Your task to perform on an android device: add a contact Image 0: 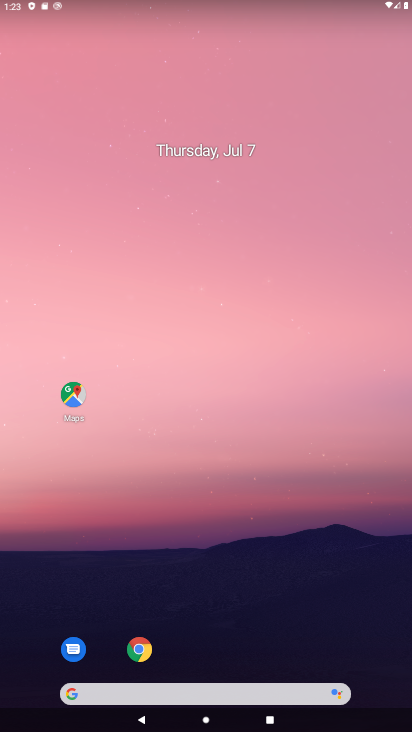
Step 0: drag from (365, 642) to (346, 45)
Your task to perform on an android device: add a contact Image 1: 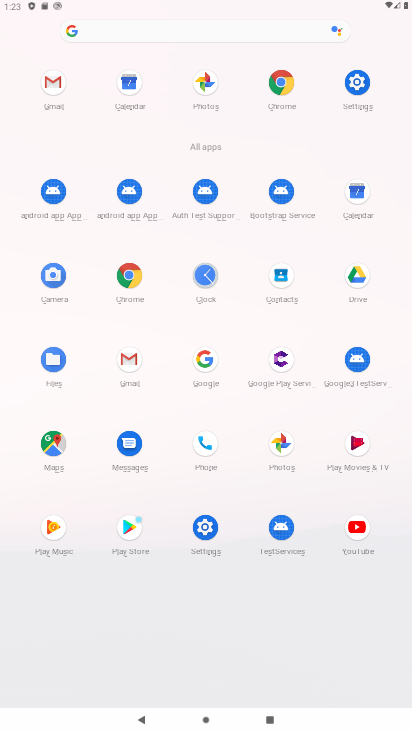
Step 1: click (279, 275)
Your task to perform on an android device: add a contact Image 2: 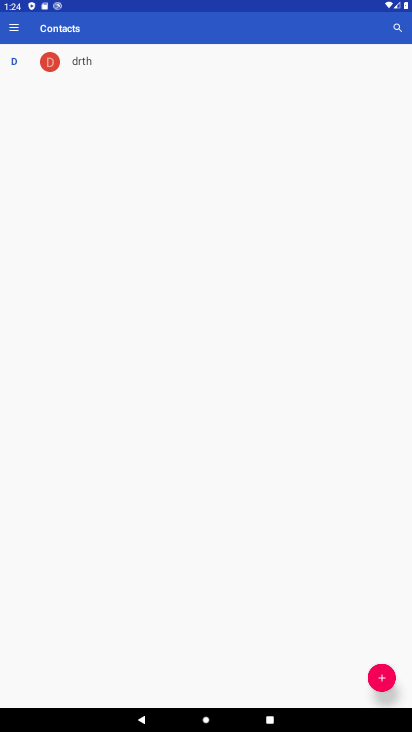
Step 2: click (383, 680)
Your task to perform on an android device: add a contact Image 3: 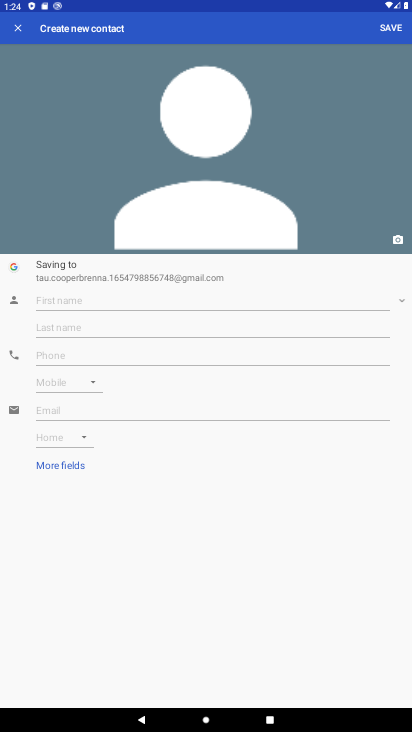
Step 3: click (55, 294)
Your task to perform on an android device: add a contact Image 4: 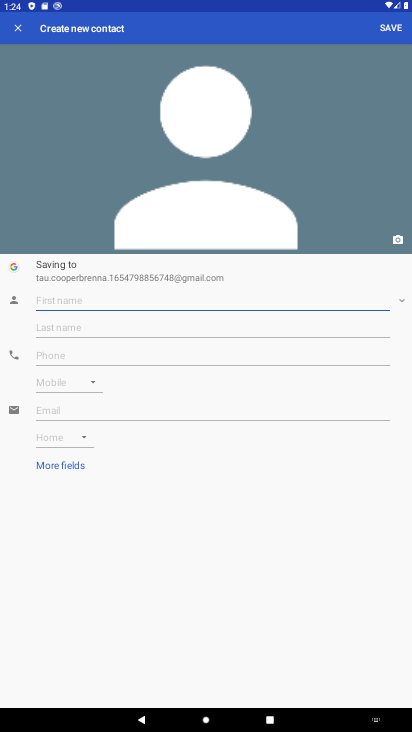
Step 4: type "lkjhgfdsasyui"
Your task to perform on an android device: add a contact Image 5: 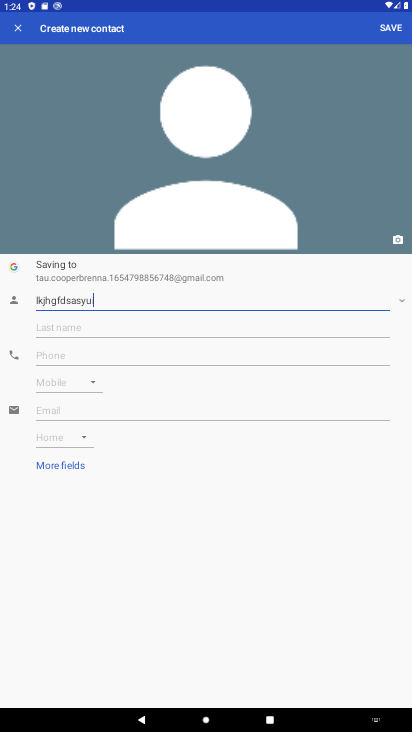
Step 5: click (86, 359)
Your task to perform on an android device: add a contact Image 6: 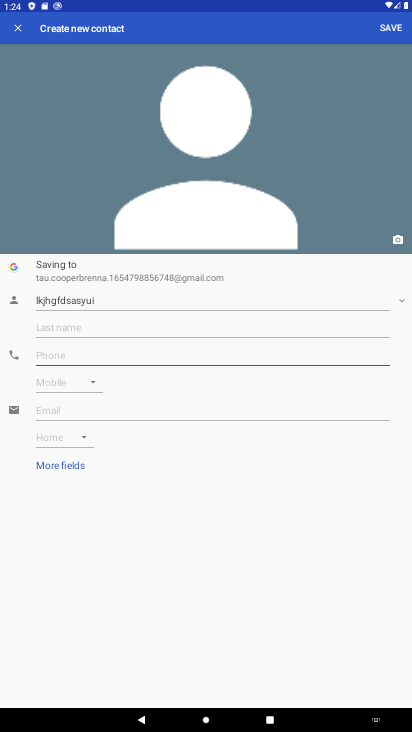
Step 6: type "0987654323456"
Your task to perform on an android device: add a contact Image 7: 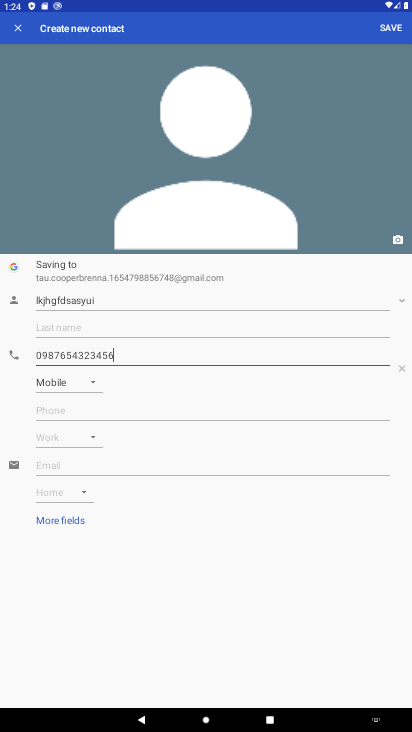
Step 7: click (95, 381)
Your task to perform on an android device: add a contact Image 8: 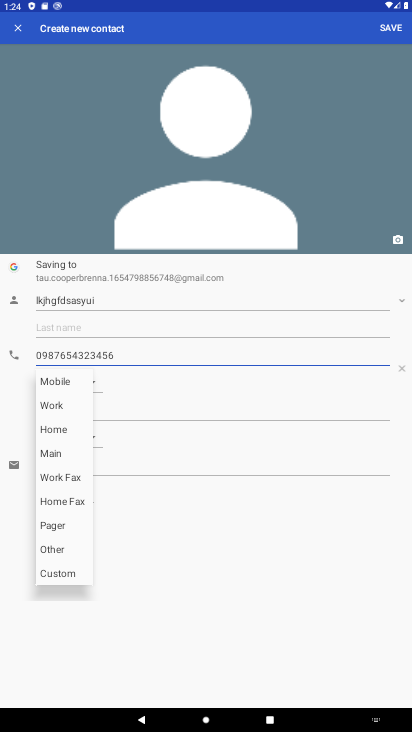
Step 8: click (46, 406)
Your task to perform on an android device: add a contact Image 9: 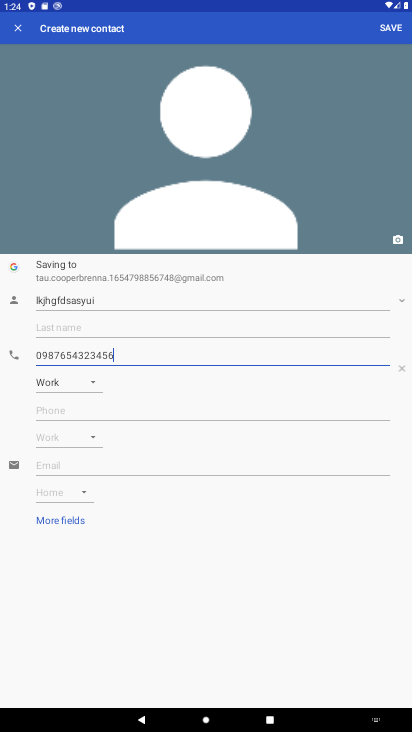
Step 9: click (386, 26)
Your task to perform on an android device: add a contact Image 10: 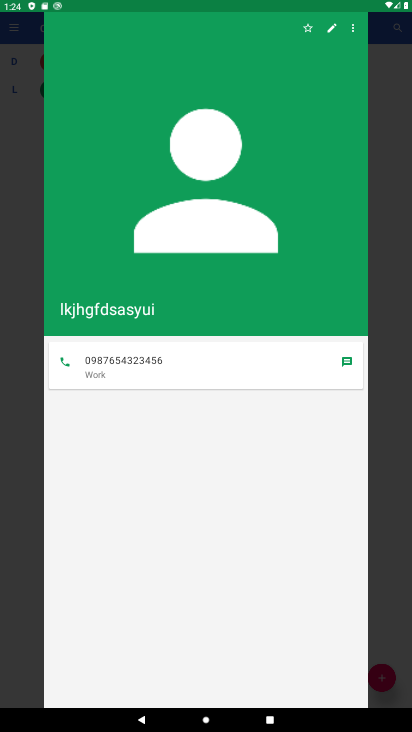
Step 10: task complete